Your task to perform on an android device: Open ESPN.com Image 0: 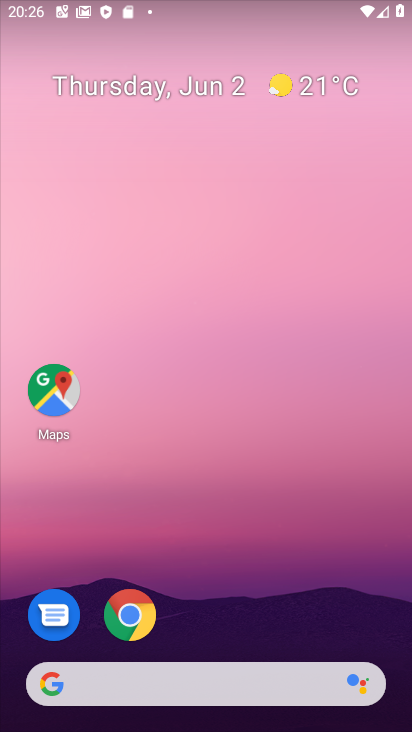
Step 0: click (153, 693)
Your task to perform on an android device: Open ESPN.com Image 1: 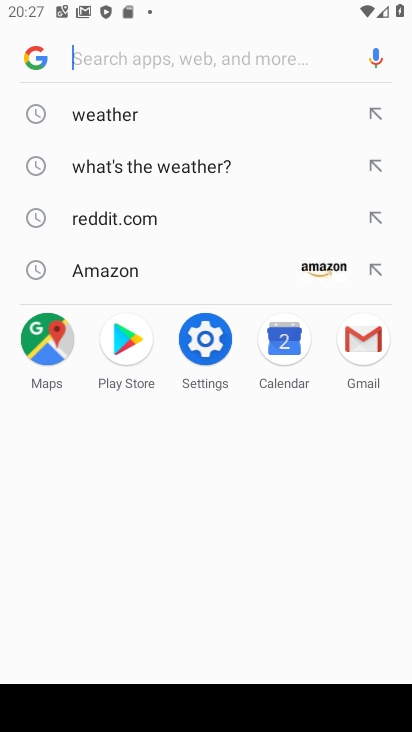
Step 1: type "espn.com"
Your task to perform on an android device: Open ESPN.com Image 2: 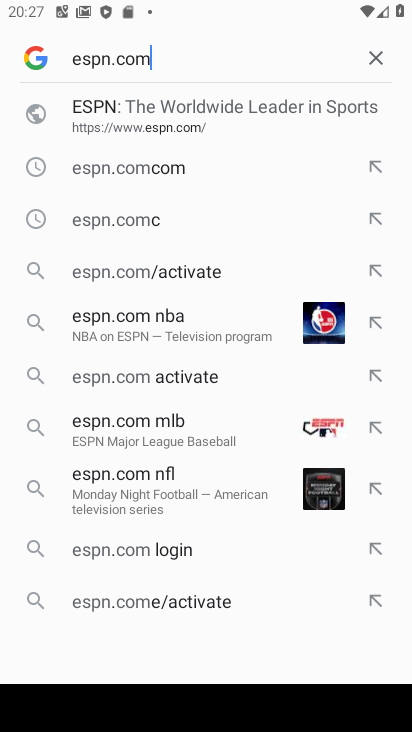
Step 2: click (307, 114)
Your task to perform on an android device: Open ESPN.com Image 3: 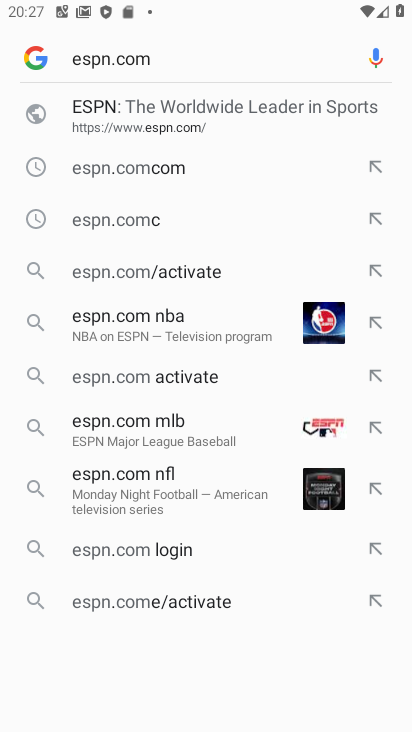
Step 3: task complete